Your task to perform on an android device: add a contact Image 0: 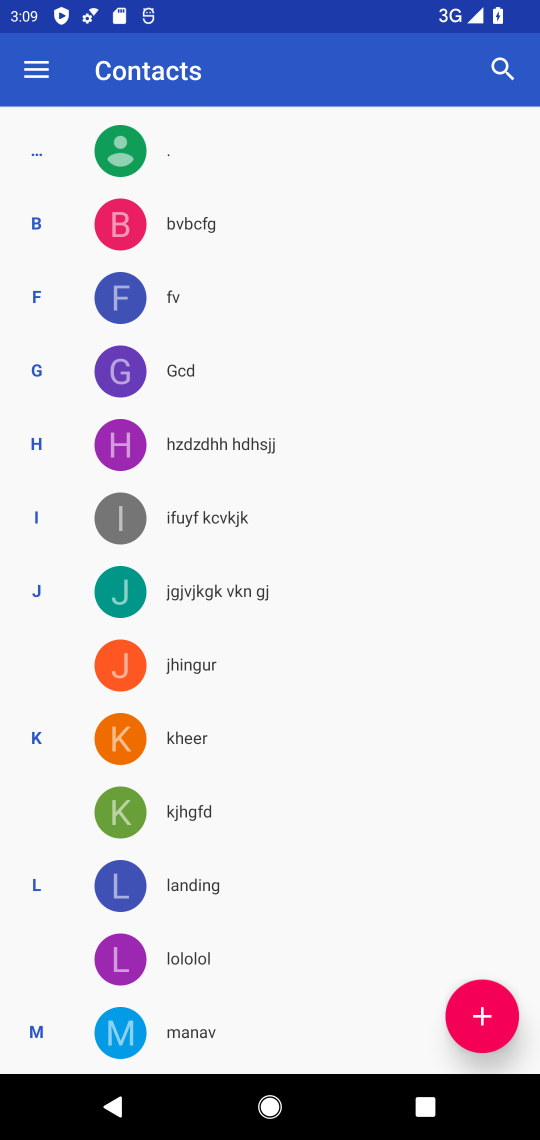
Step 0: click (495, 1031)
Your task to perform on an android device: add a contact Image 1: 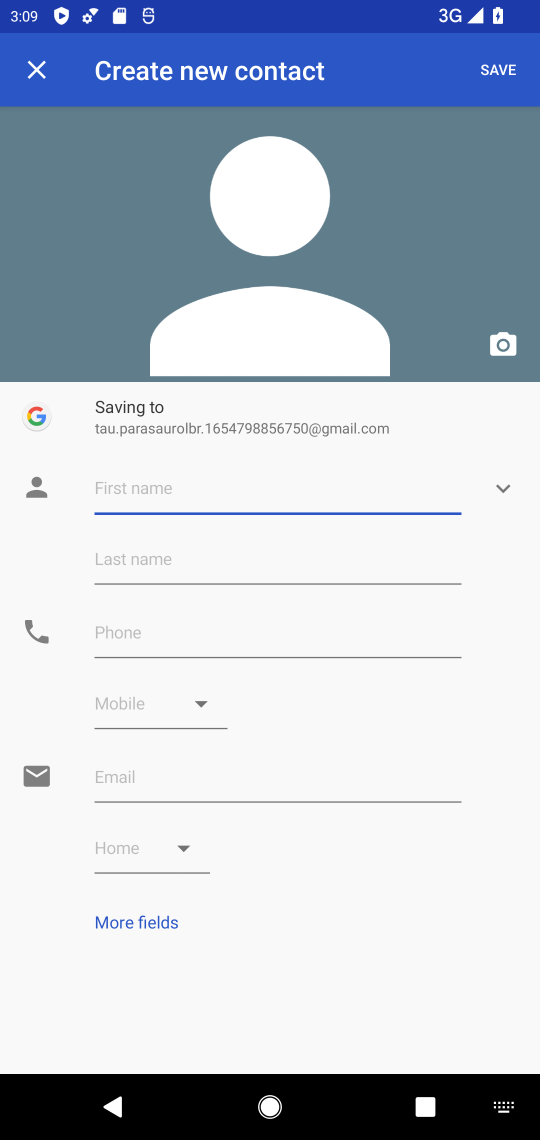
Step 1: type ",jhzxj"
Your task to perform on an android device: add a contact Image 2: 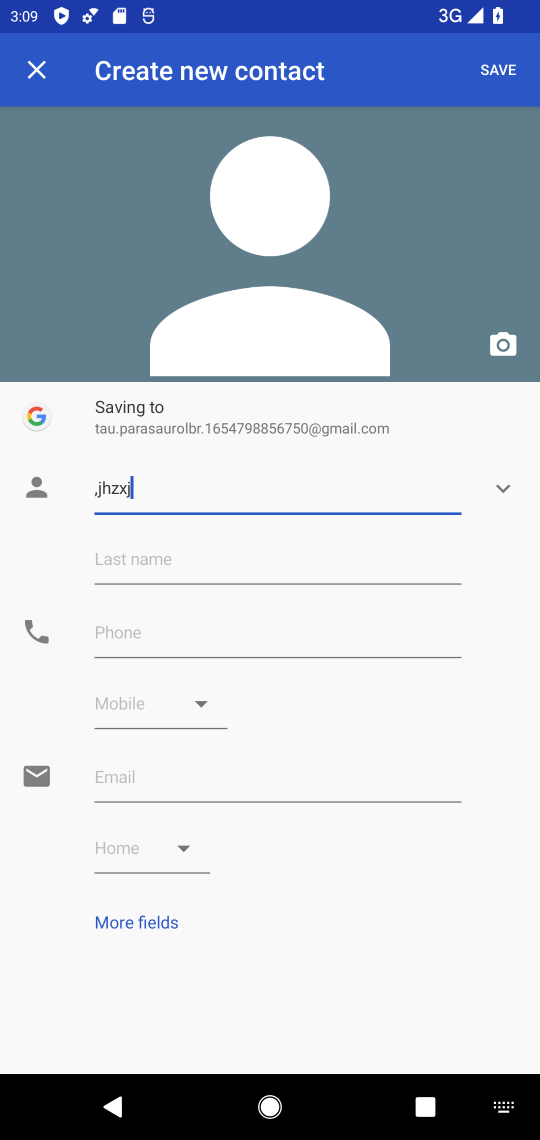
Step 2: click (272, 553)
Your task to perform on an android device: add a contact Image 3: 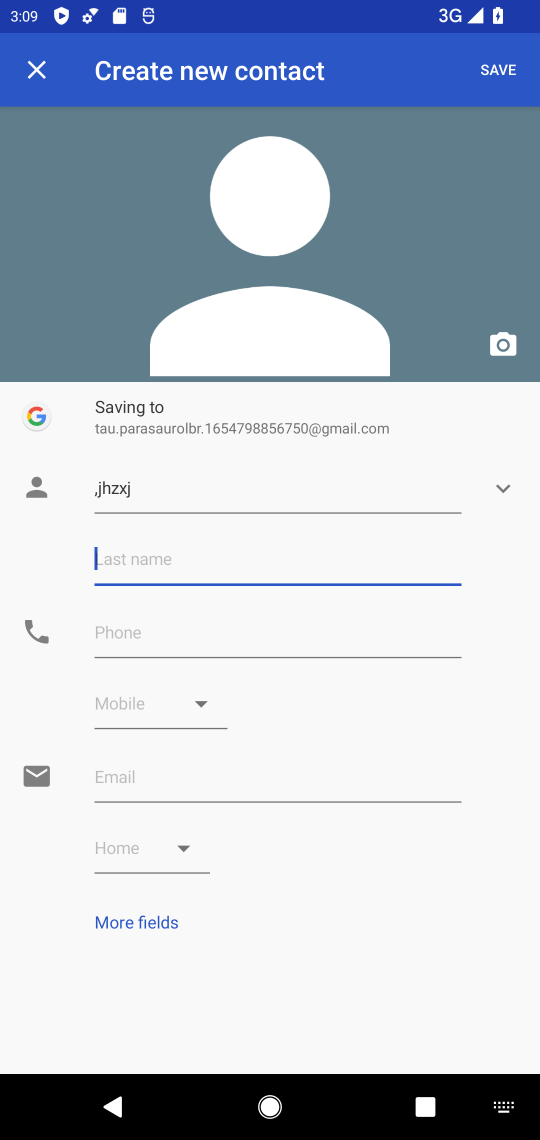
Step 3: type "klkhjhdfjh"
Your task to perform on an android device: add a contact Image 4: 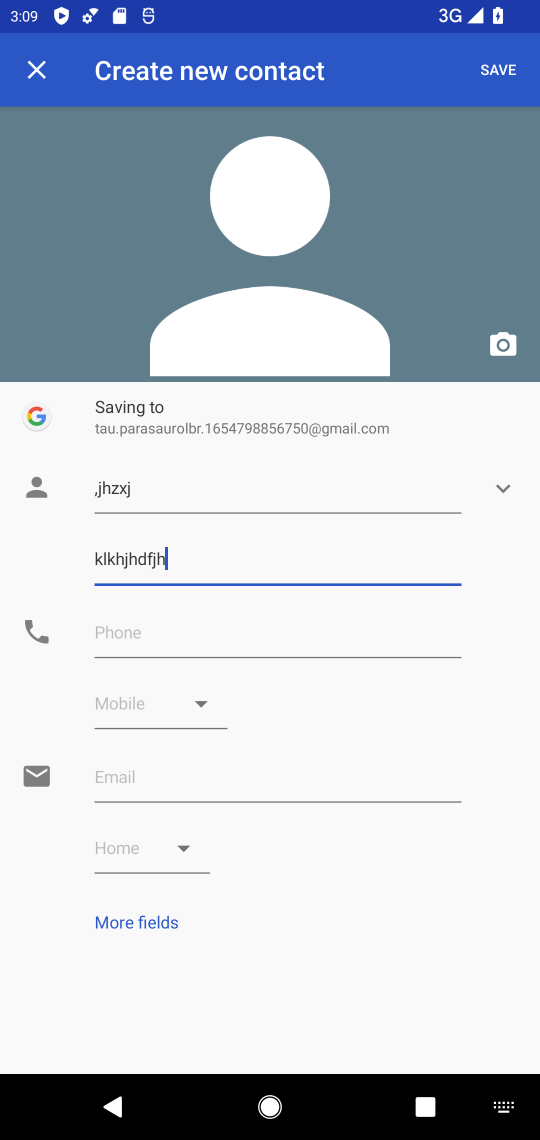
Step 4: click (165, 629)
Your task to perform on an android device: add a contact Image 5: 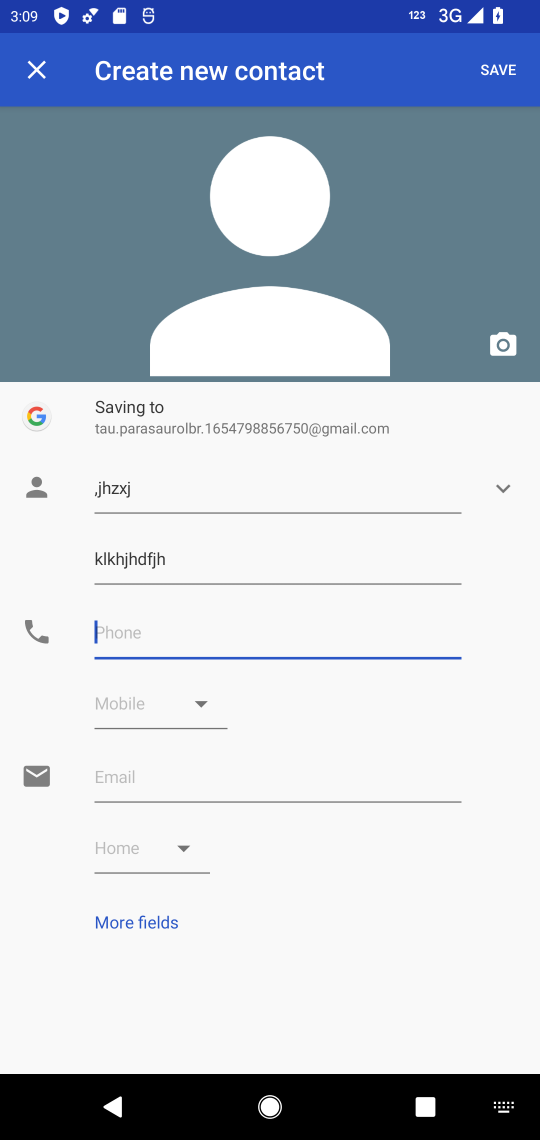
Step 5: type "876543567"
Your task to perform on an android device: add a contact Image 6: 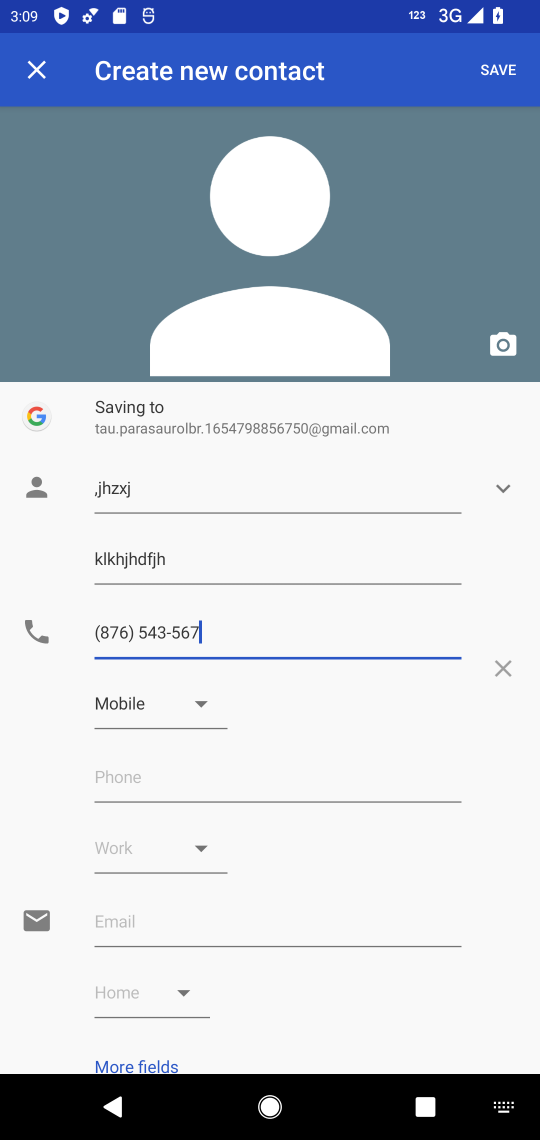
Step 6: click (496, 66)
Your task to perform on an android device: add a contact Image 7: 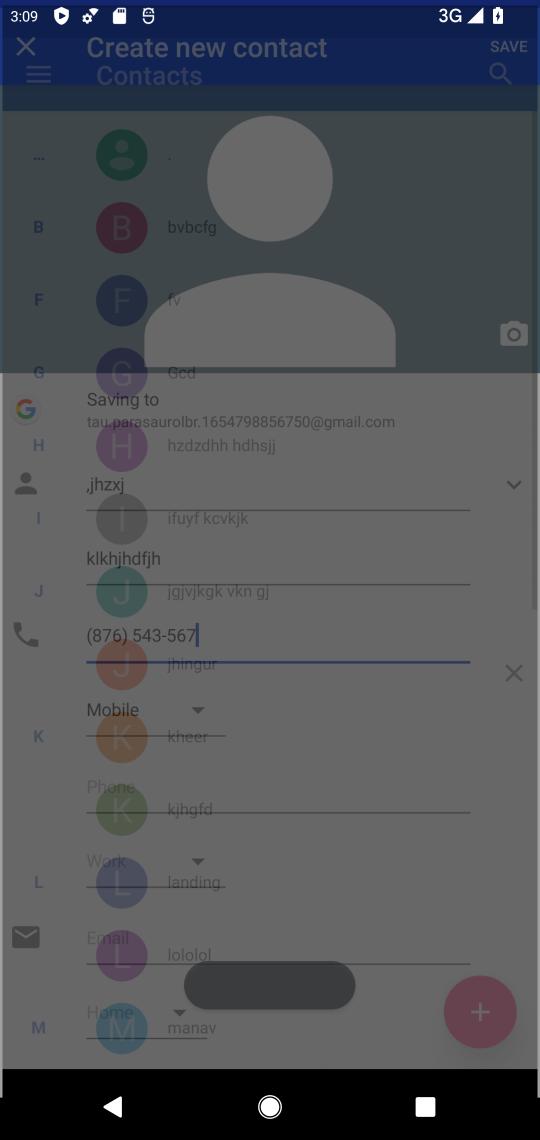
Step 7: task complete